Your task to perform on an android device: Set the phone to "Do not disturb". Image 0: 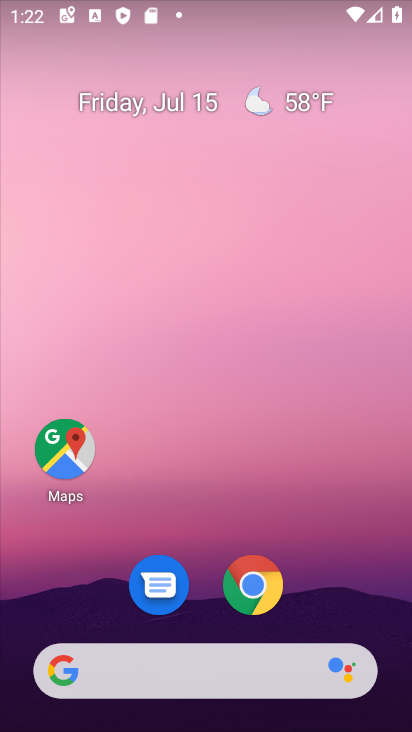
Step 0: drag from (269, 503) to (290, 27)
Your task to perform on an android device: Set the phone to "Do not disturb". Image 1: 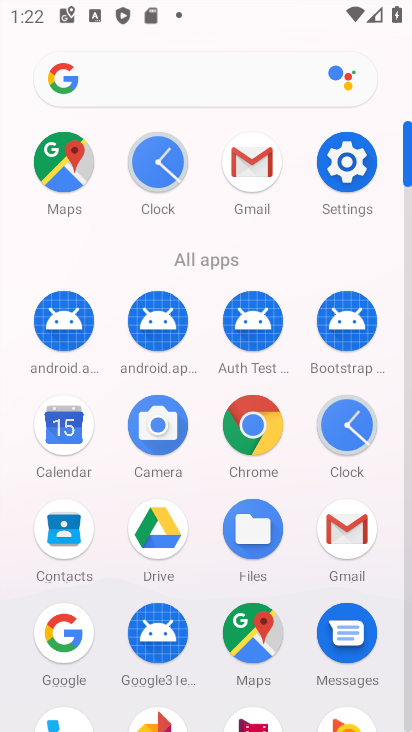
Step 1: click (339, 166)
Your task to perform on an android device: Set the phone to "Do not disturb". Image 2: 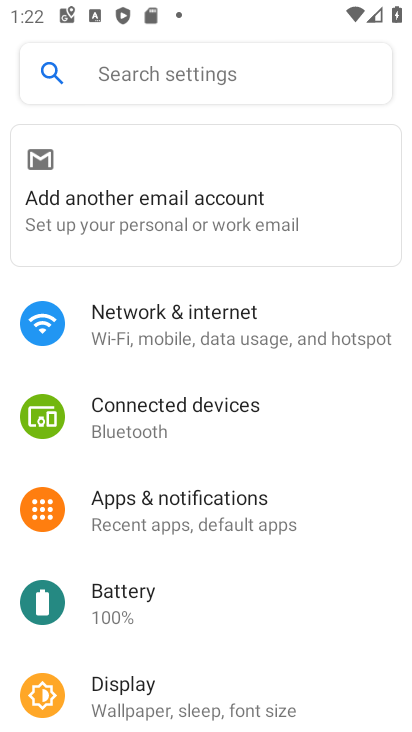
Step 2: drag from (228, 599) to (256, 192)
Your task to perform on an android device: Set the phone to "Do not disturb". Image 3: 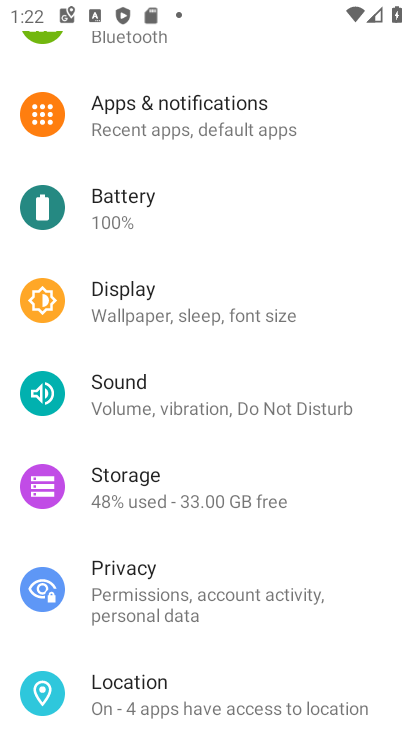
Step 3: click (243, 397)
Your task to perform on an android device: Set the phone to "Do not disturb". Image 4: 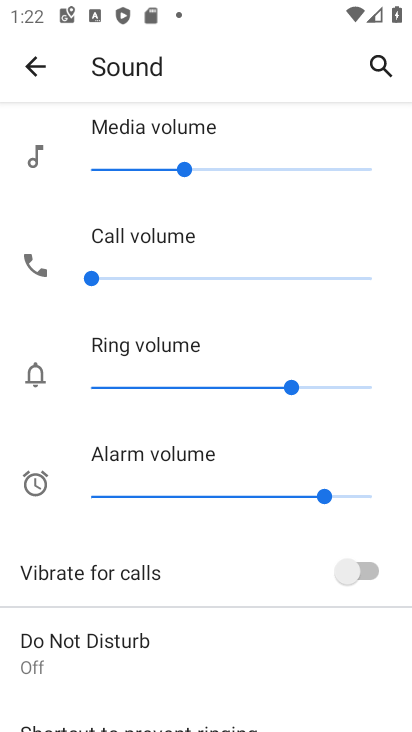
Step 4: click (127, 659)
Your task to perform on an android device: Set the phone to "Do not disturb". Image 5: 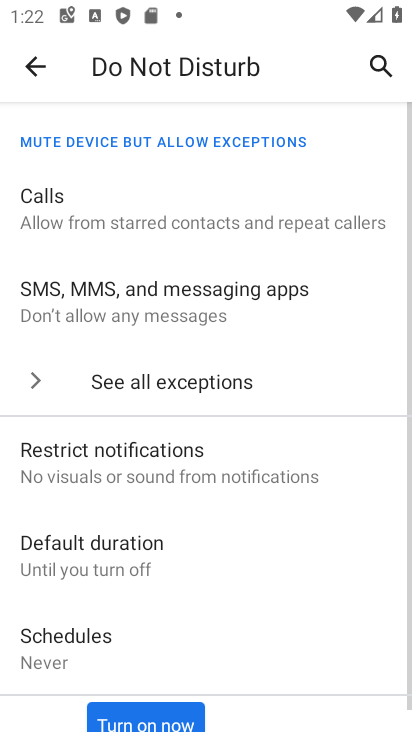
Step 5: drag from (192, 597) to (289, 343)
Your task to perform on an android device: Set the phone to "Do not disturb". Image 6: 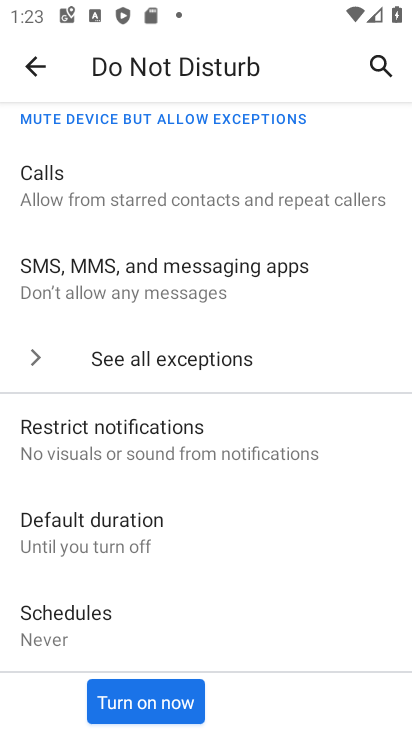
Step 6: click (157, 697)
Your task to perform on an android device: Set the phone to "Do not disturb". Image 7: 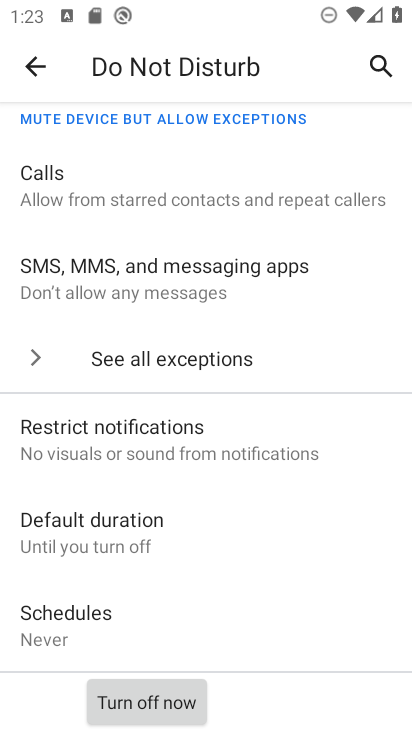
Step 7: task complete